Your task to perform on an android device: create a new album in the google photos Image 0: 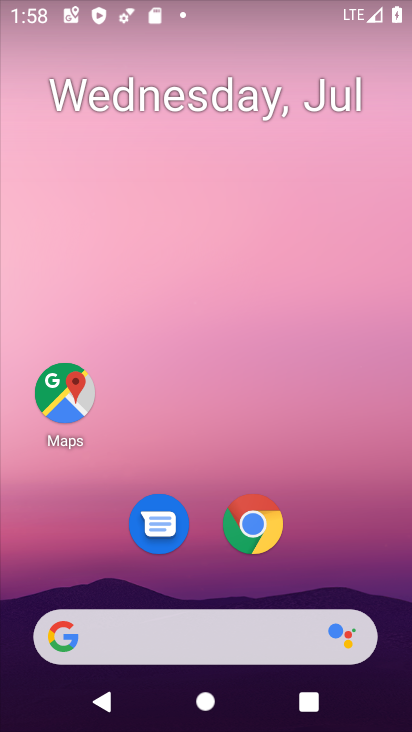
Step 0: drag from (329, 535) to (292, 35)
Your task to perform on an android device: create a new album in the google photos Image 1: 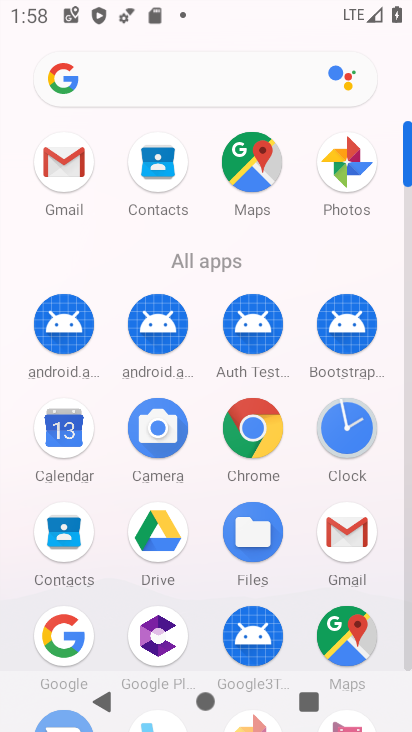
Step 1: click (346, 161)
Your task to perform on an android device: create a new album in the google photos Image 2: 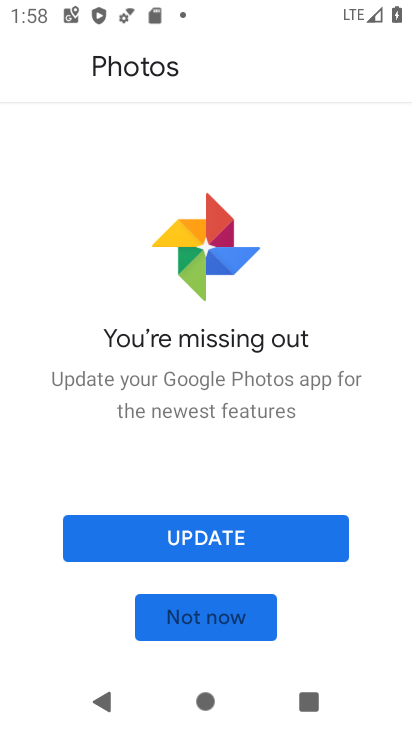
Step 2: click (230, 613)
Your task to perform on an android device: create a new album in the google photos Image 3: 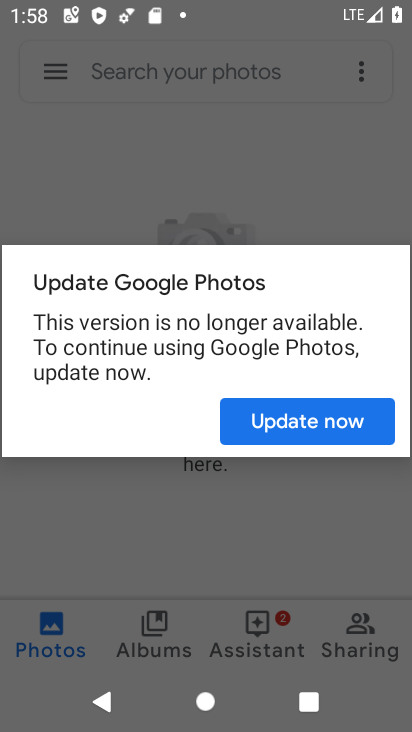
Step 3: click (369, 419)
Your task to perform on an android device: create a new album in the google photos Image 4: 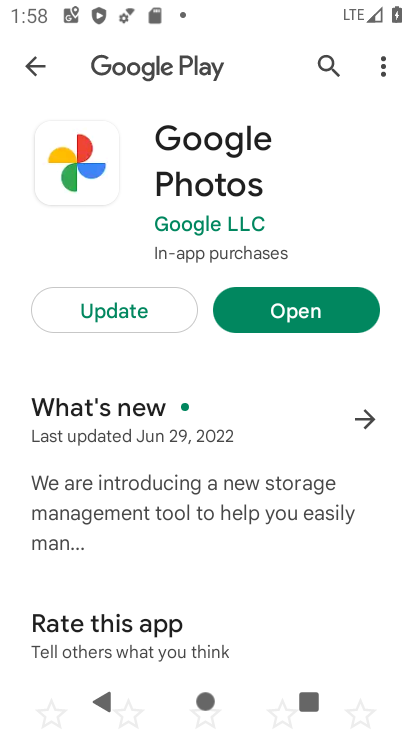
Step 4: click (321, 319)
Your task to perform on an android device: create a new album in the google photos Image 5: 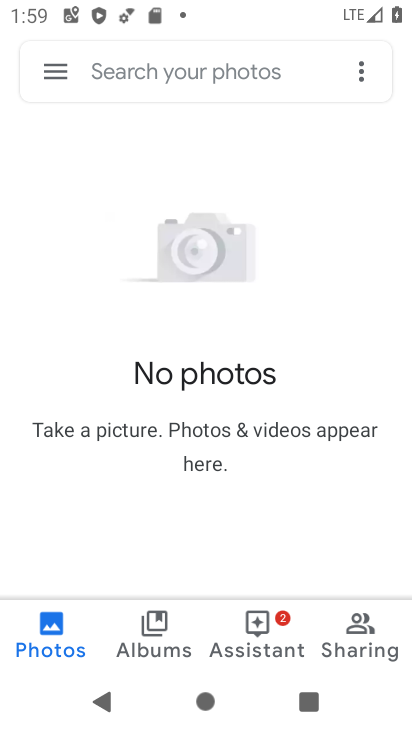
Step 5: click (157, 627)
Your task to perform on an android device: create a new album in the google photos Image 6: 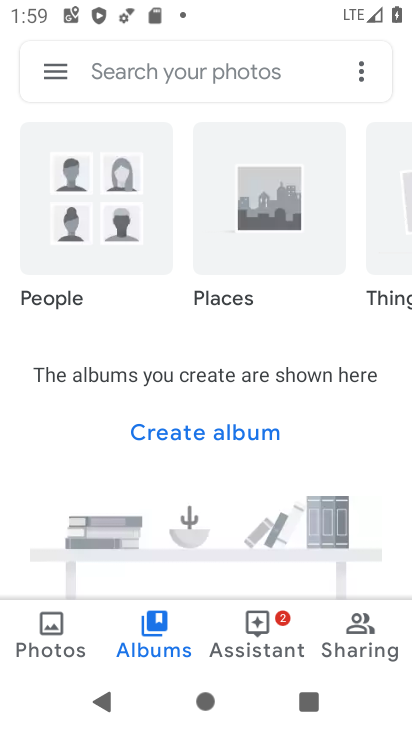
Step 6: drag from (228, 496) to (266, 329)
Your task to perform on an android device: create a new album in the google photos Image 7: 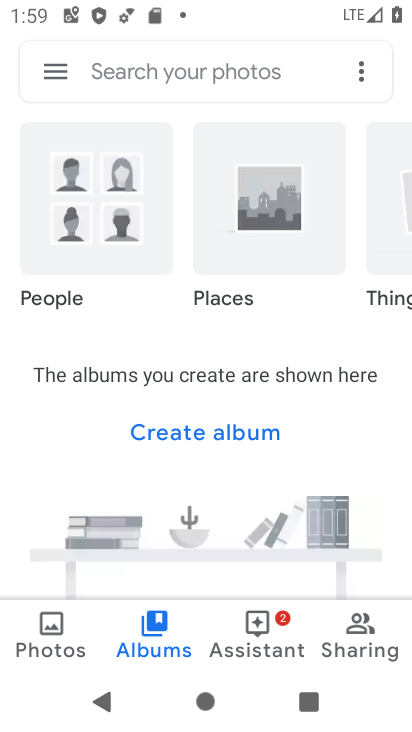
Step 7: click (249, 423)
Your task to perform on an android device: create a new album in the google photos Image 8: 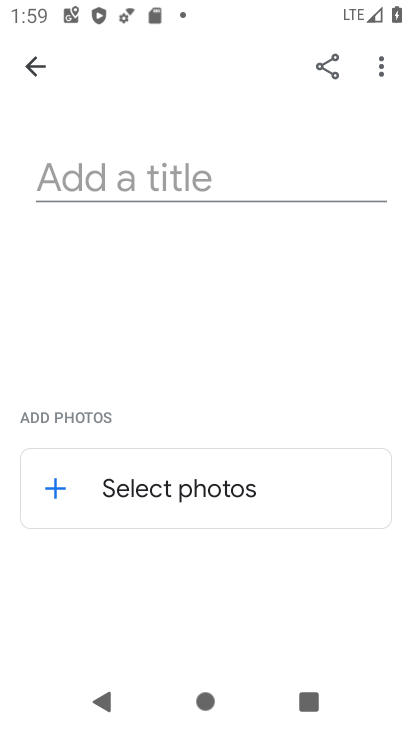
Step 8: click (202, 170)
Your task to perform on an android device: create a new album in the google photos Image 9: 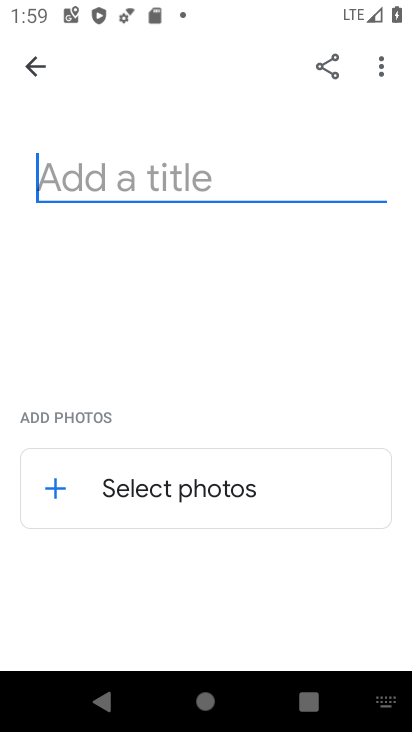
Step 9: type "Indraprastha"
Your task to perform on an android device: create a new album in the google photos Image 10: 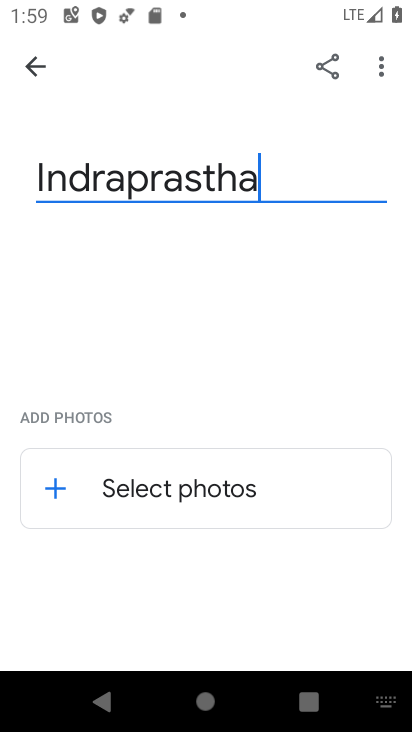
Step 10: click (377, 62)
Your task to perform on an android device: create a new album in the google photos Image 11: 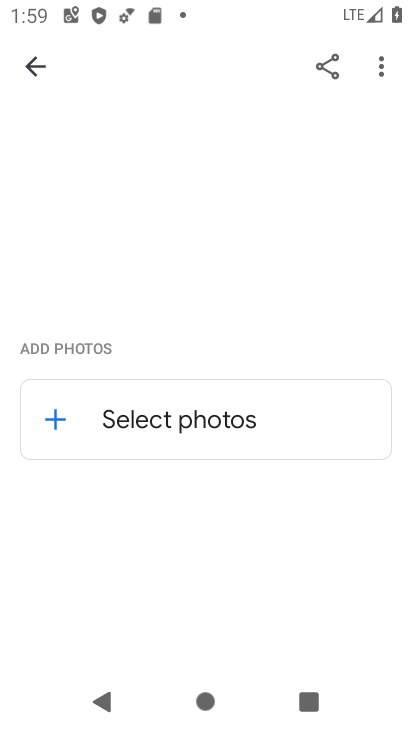
Step 11: click (377, 63)
Your task to perform on an android device: create a new album in the google photos Image 12: 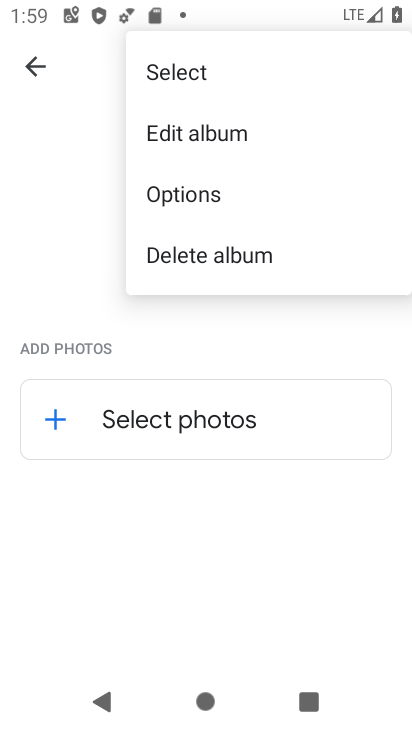
Step 12: click (202, 188)
Your task to perform on an android device: create a new album in the google photos Image 13: 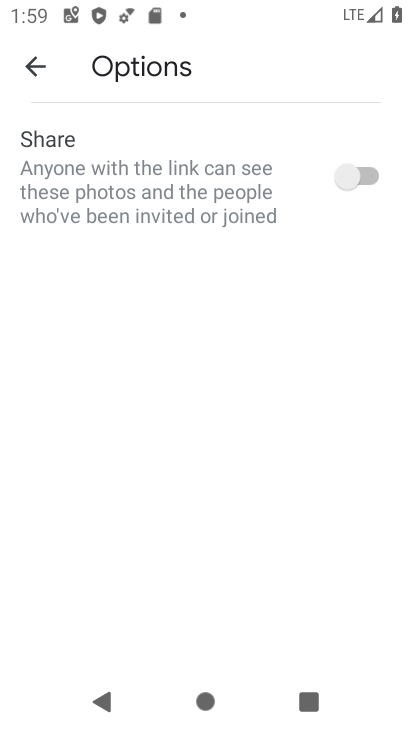
Step 13: click (36, 62)
Your task to perform on an android device: create a new album in the google photos Image 14: 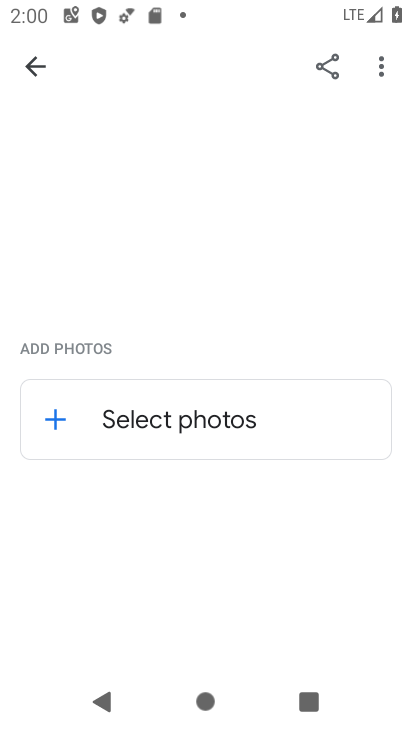
Step 14: click (50, 410)
Your task to perform on an android device: create a new album in the google photos Image 15: 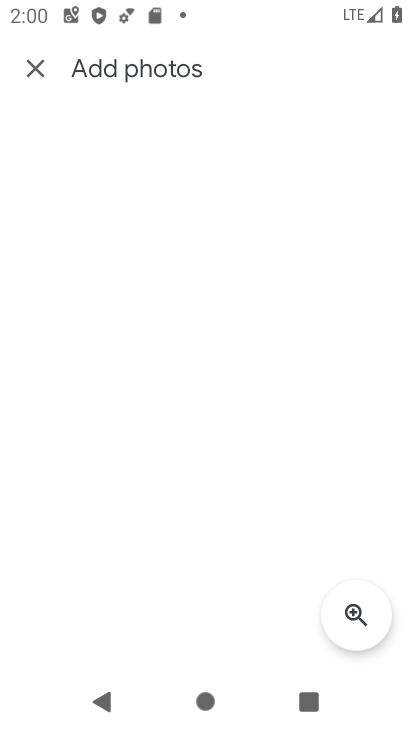
Step 15: click (33, 68)
Your task to perform on an android device: create a new album in the google photos Image 16: 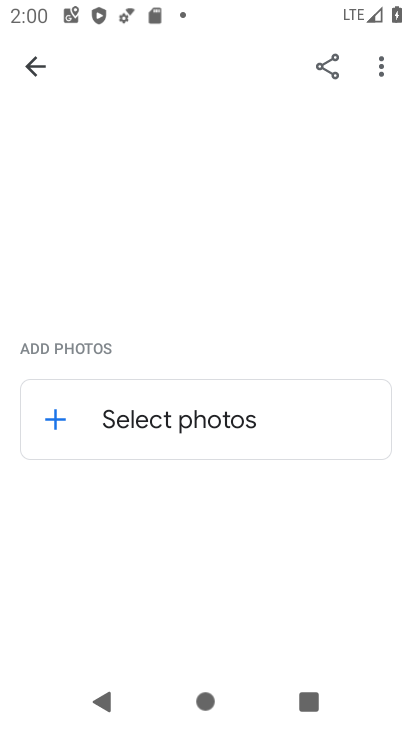
Step 16: click (33, 54)
Your task to perform on an android device: create a new album in the google photos Image 17: 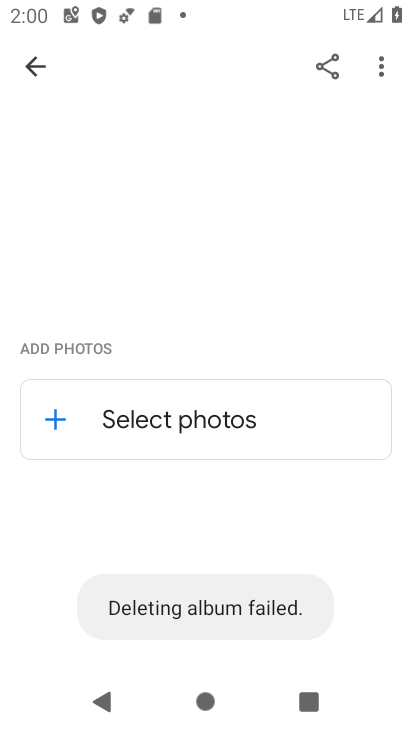
Step 17: click (35, 60)
Your task to perform on an android device: create a new album in the google photos Image 18: 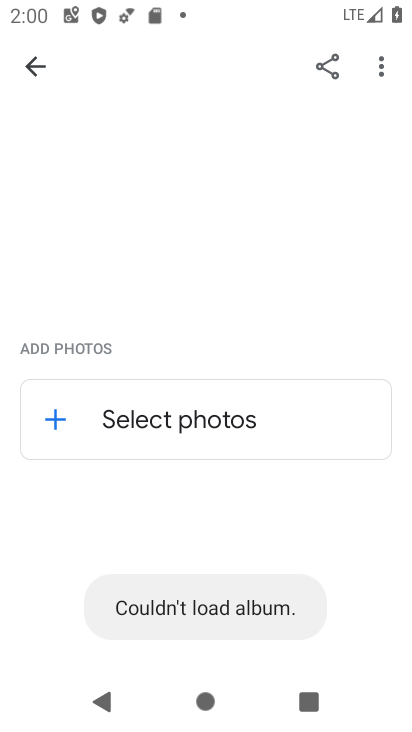
Step 18: click (35, 60)
Your task to perform on an android device: create a new album in the google photos Image 19: 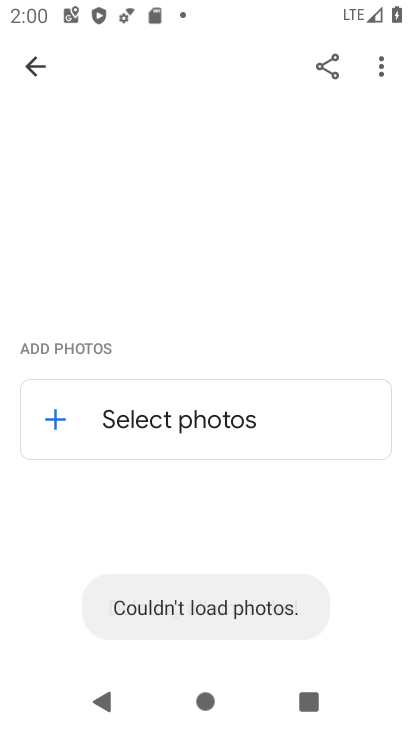
Step 19: task complete